Your task to perform on an android device: change notification settings in the gmail app Image 0: 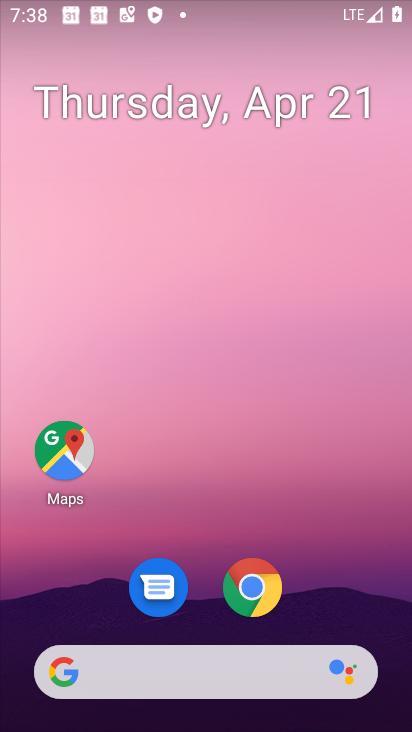
Step 0: drag from (364, 414) to (336, 166)
Your task to perform on an android device: change notification settings in the gmail app Image 1: 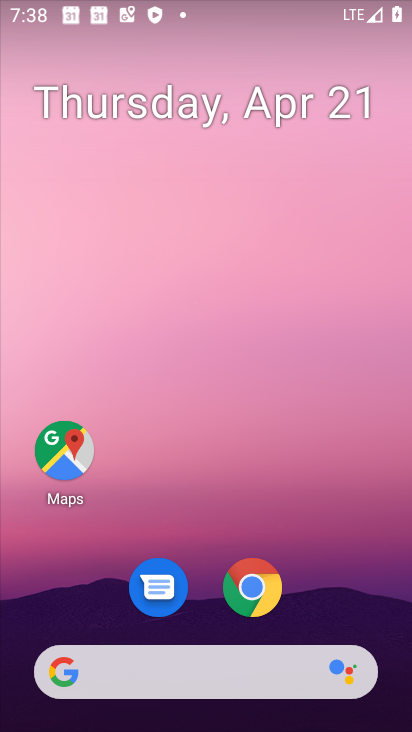
Step 1: drag from (384, 607) to (322, 78)
Your task to perform on an android device: change notification settings in the gmail app Image 2: 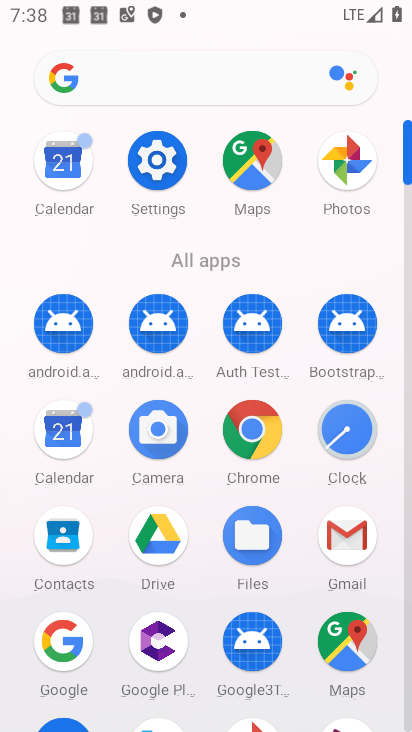
Step 2: click (342, 526)
Your task to perform on an android device: change notification settings in the gmail app Image 3: 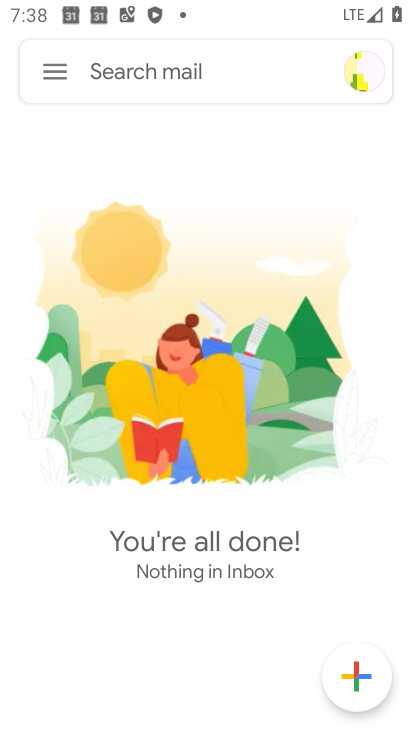
Step 3: click (57, 64)
Your task to perform on an android device: change notification settings in the gmail app Image 4: 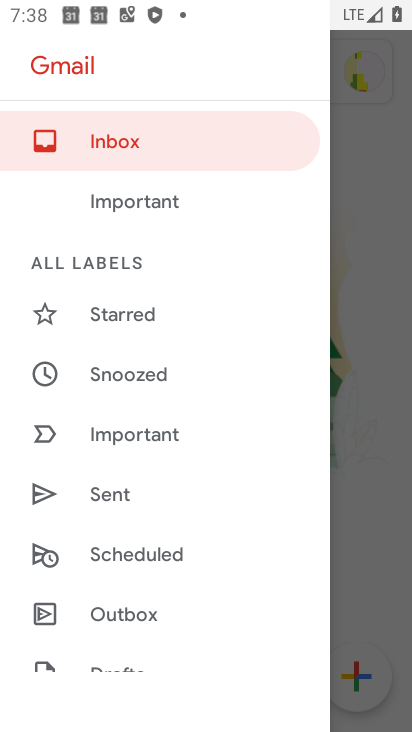
Step 4: drag from (247, 678) to (245, 205)
Your task to perform on an android device: change notification settings in the gmail app Image 5: 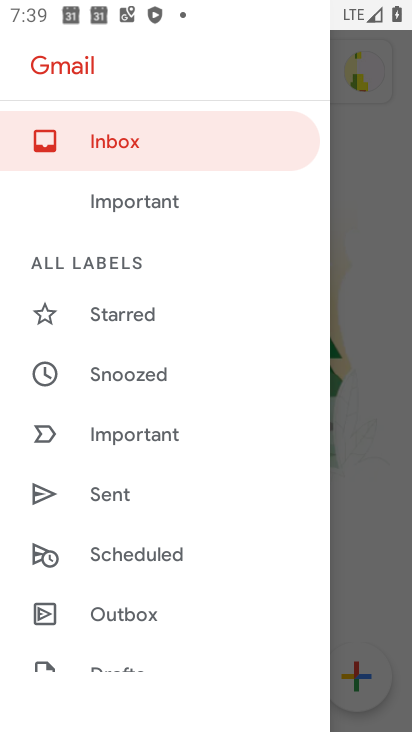
Step 5: drag from (256, 648) to (252, 300)
Your task to perform on an android device: change notification settings in the gmail app Image 6: 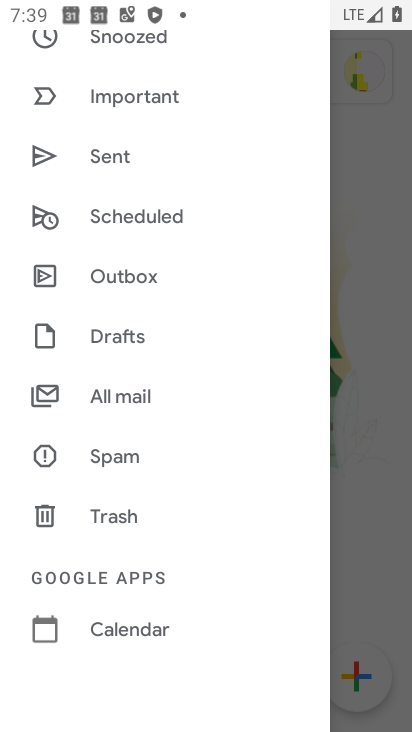
Step 6: drag from (234, 653) to (251, 235)
Your task to perform on an android device: change notification settings in the gmail app Image 7: 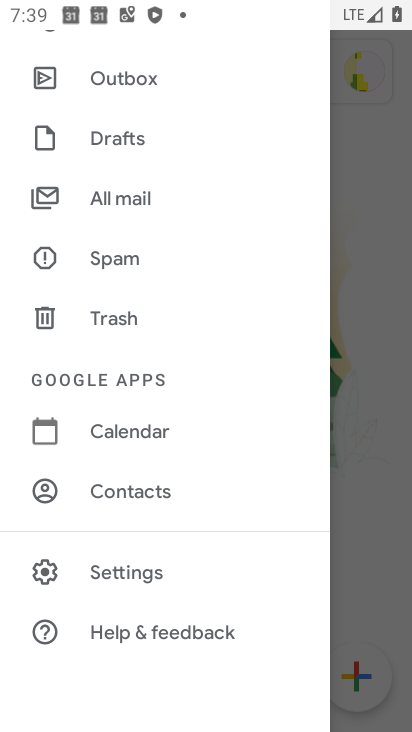
Step 7: click (107, 576)
Your task to perform on an android device: change notification settings in the gmail app Image 8: 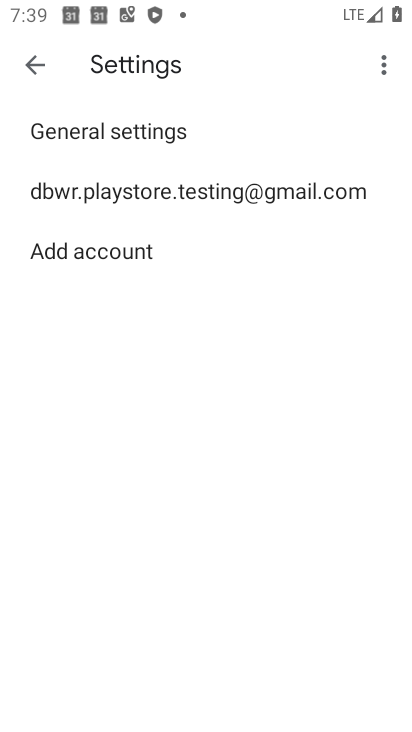
Step 8: click (101, 127)
Your task to perform on an android device: change notification settings in the gmail app Image 9: 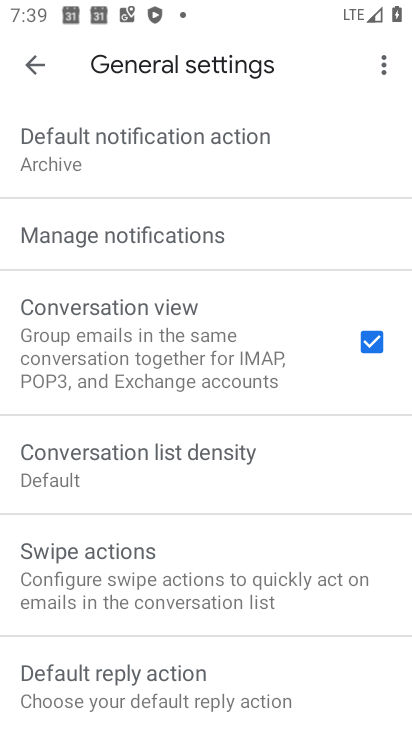
Step 9: click (173, 232)
Your task to perform on an android device: change notification settings in the gmail app Image 10: 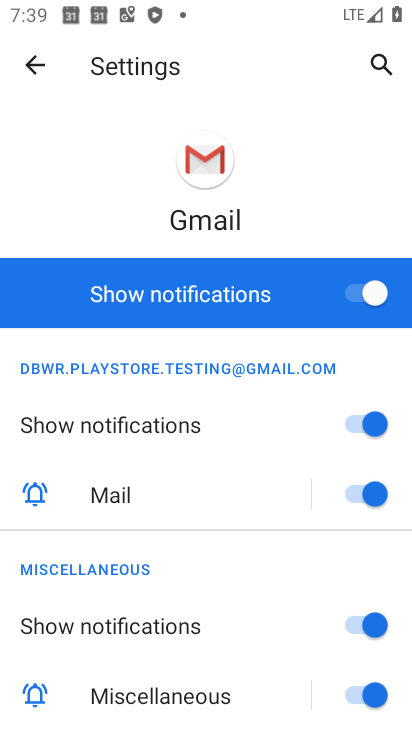
Step 10: click (344, 298)
Your task to perform on an android device: change notification settings in the gmail app Image 11: 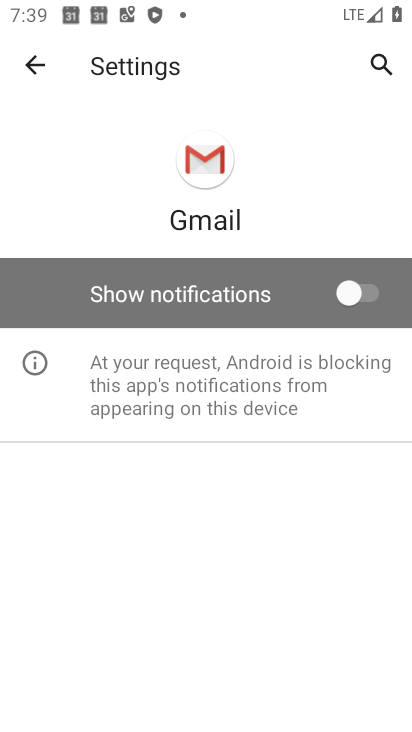
Step 11: task complete